Your task to perform on an android device: Do I have any events today? Image 0: 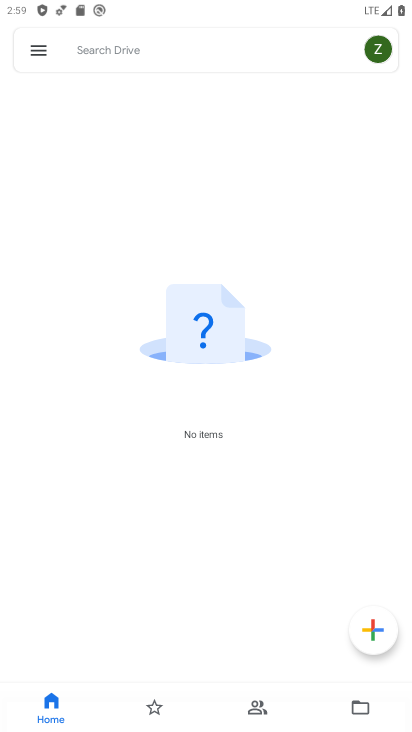
Step 0: press home button
Your task to perform on an android device: Do I have any events today? Image 1: 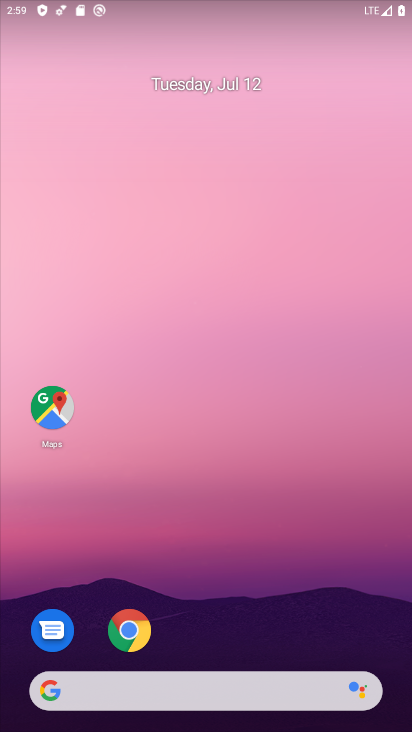
Step 1: drag from (200, 640) to (191, 0)
Your task to perform on an android device: Do I have any events today? Image 2: 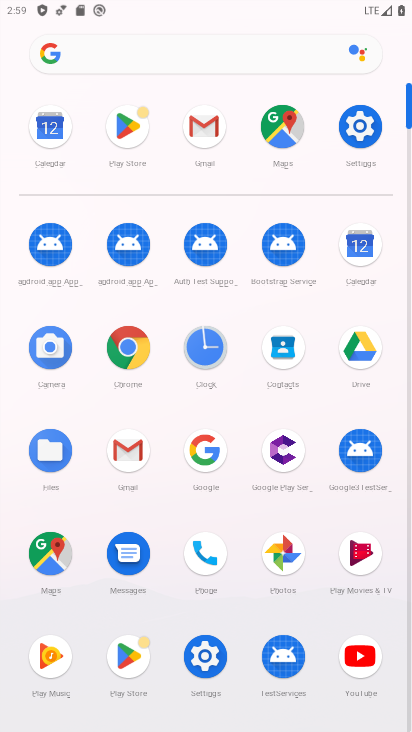
Step 2: click (363, 242)
Your task to perform on an android device: Do I have any events today? Image 3: 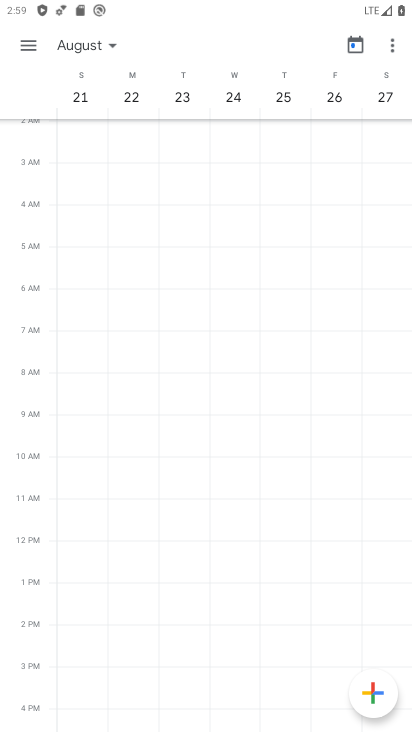
Step 3: click (95, 41)
Your task to perform on an android device: Do I have any events today? Image 4: 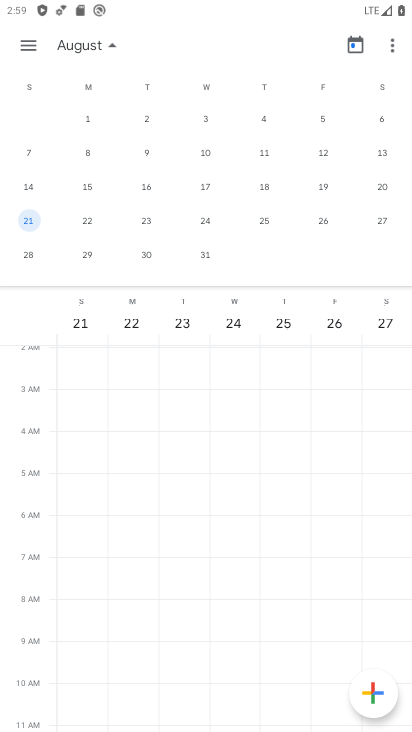
Step 4: drag from (49, 124) to (398, 209)
Your task to perform on an android device: Do I have any events today? Image 5: 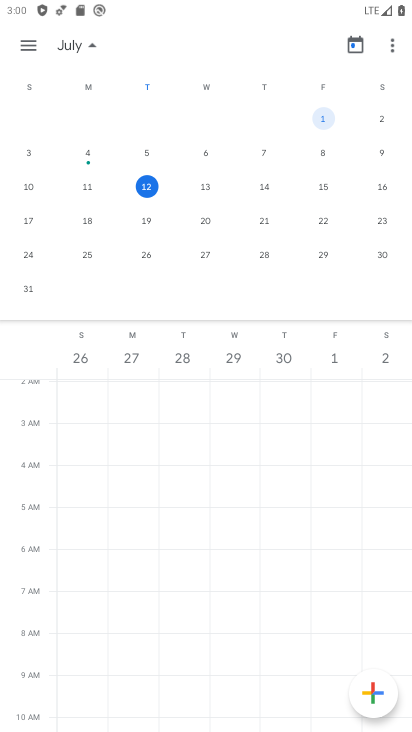
Step 5: click (25, 43)
Your task to perform on an android device: Do I have any events today? Image 6: 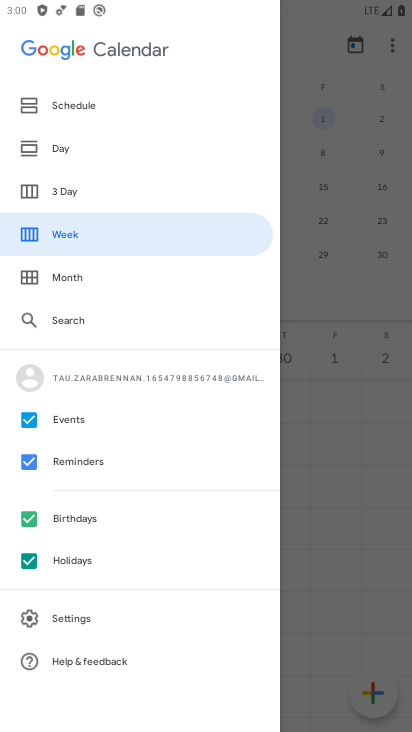
Step 6: click (69, 464)
Your task to perform on an android device: Do I have any events today? Image 7: 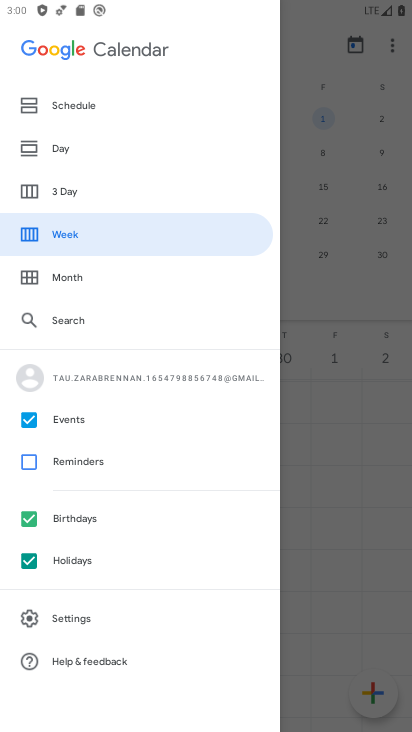
Step 7: click (63, 519)
Your task to perform on an android device: Do I have any events today? Image 8: 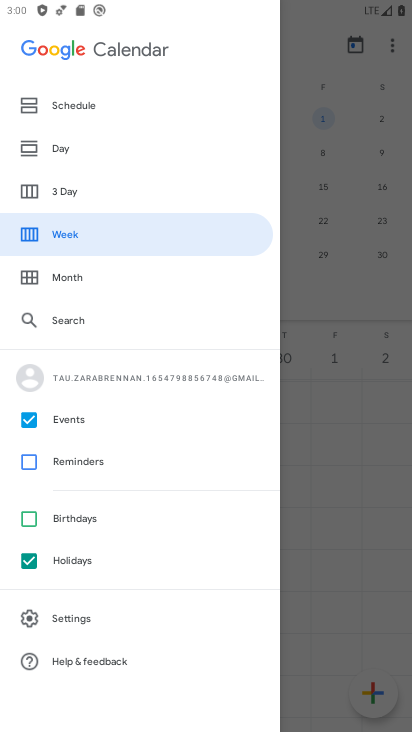
Step 8: click (63, 577)
Your task to perform on an android device: Do I have any events today? Image 9: 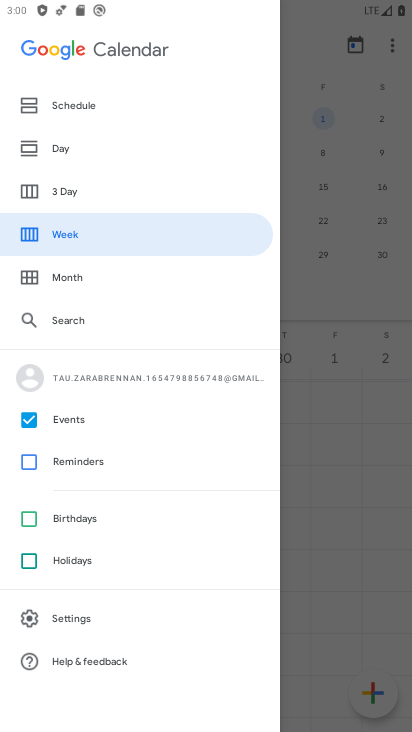
Step 9: click (67, 146)
Your task to perform on an android device: Do I have any events today? Image 10: 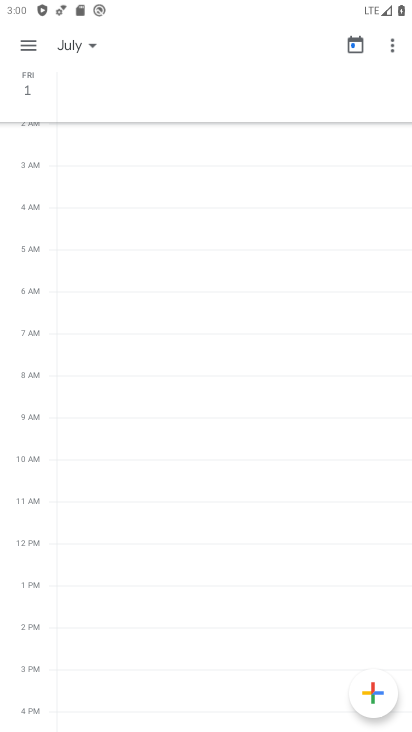
Step 10: task complete